Your task to perform on an android device: choose inbox layout in the gmail app Image 0: 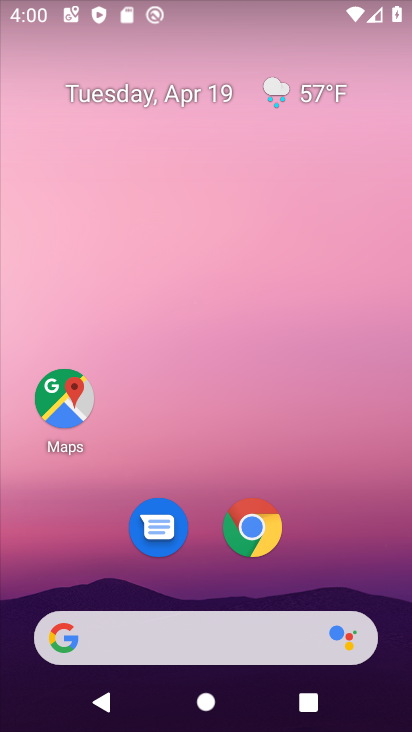
Step 0: drag from (388, 606) to (317, 108)
Your task to perform on an android device: choose inbox layout in the gmail app Image 1: 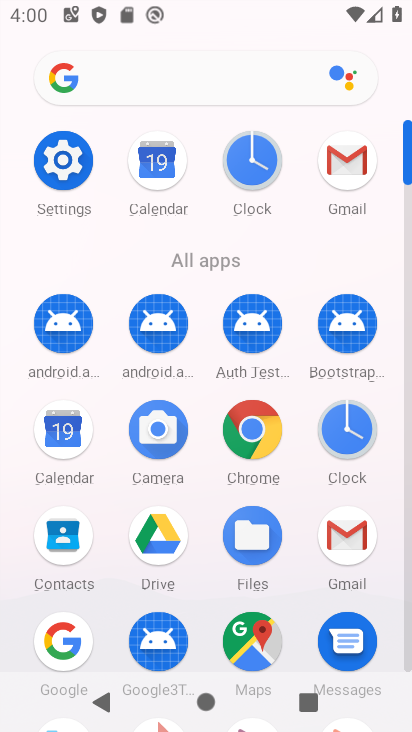
Step 1: click (405, 654)
Your task to perform on an android device: choose inbox layout in the gmail app Image 2: 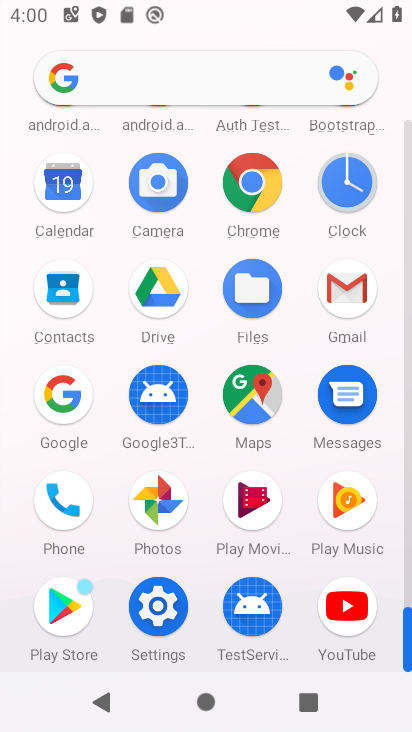
Step 2: click (342, 284)
Your task to perform on an android device: choose inbox layout in the gmail app Image 3: 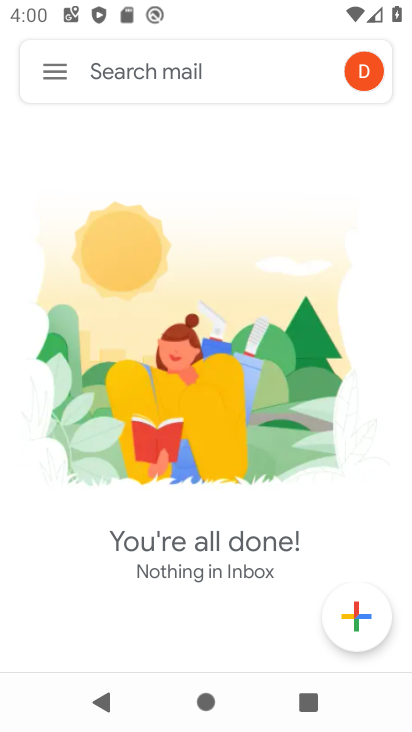
Step 3: click (50, 68)
Your task to perform on an android device: choose inbox layout in the gmail app Image 4: 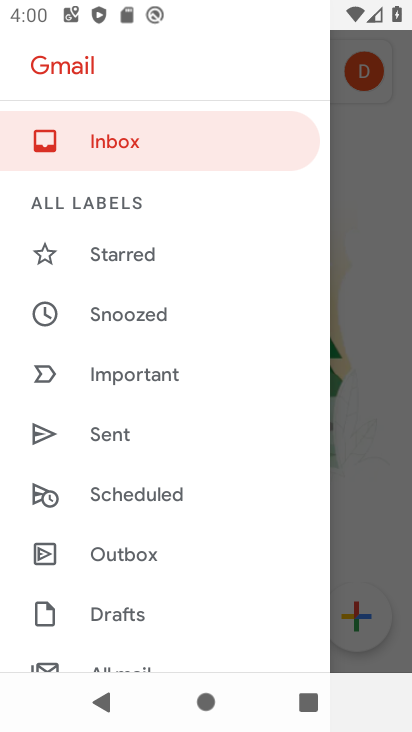
Step 4: drag from (223, 531) to (257, 271)
Your task to perform on an android device: choose inbox layout in the gmail app Image 5: 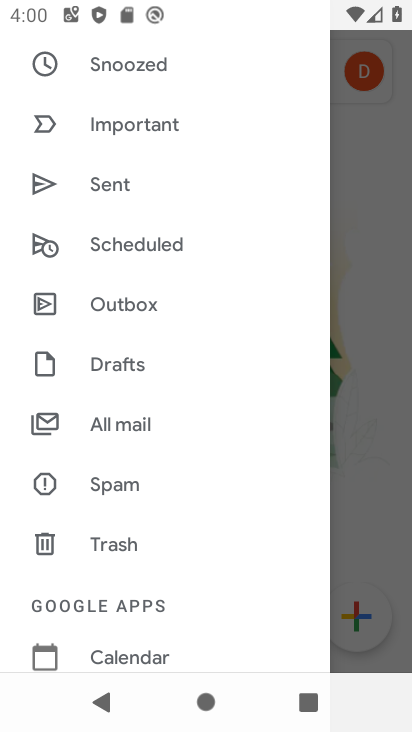
Step 5: drag from (217, 598) to (255, 267)
Your task to perform on an android device: choose inbox layout in the gmail app Image 6: 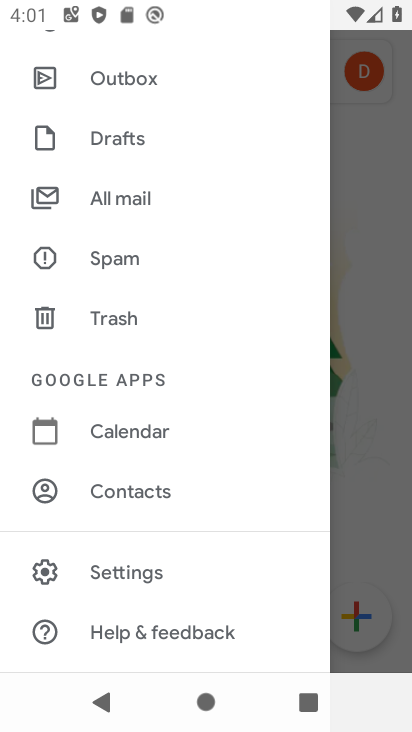
Step 6: click (118, 569)
Your task to perform on an android device: choose inbox layout in the gmail app Image 7: 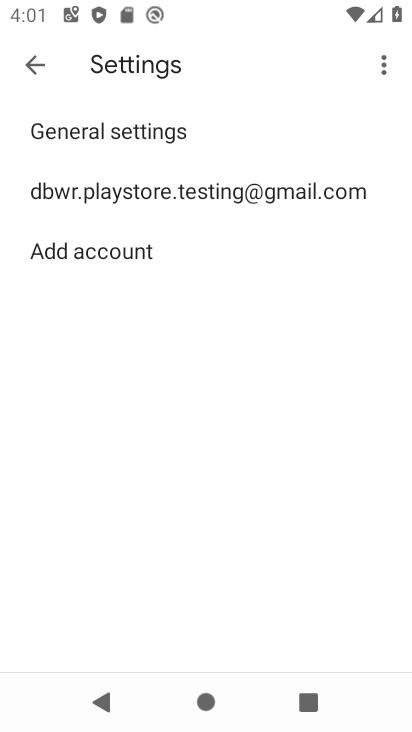
Step 7: click (185, 185)
Your task to perform on an android device: choose inbox layout in the gmail app Image 8: 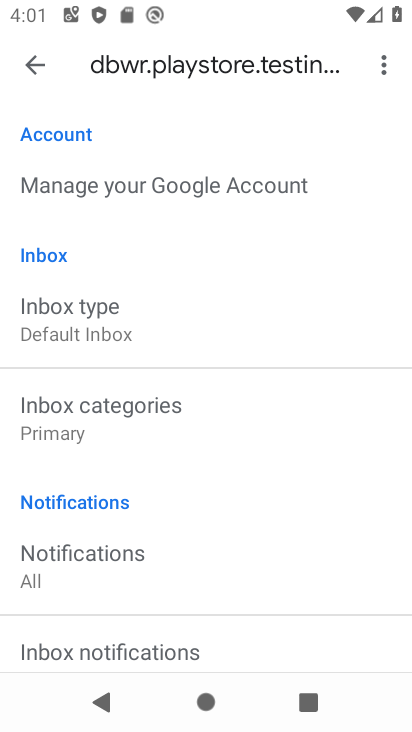
Step 8: click (71, 320)
Your task to perform on an android device: choose inbox layout in the gmail app Image 9: 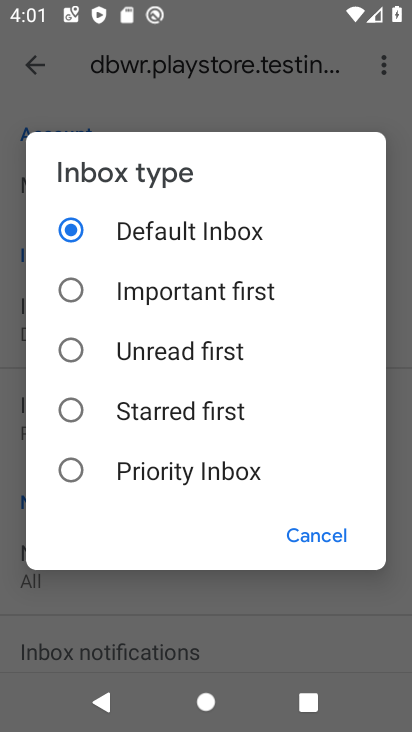
Step 9: click (64, 414)
Your task to perform on an android device: choose inbox layout in the gmail app Image 10: 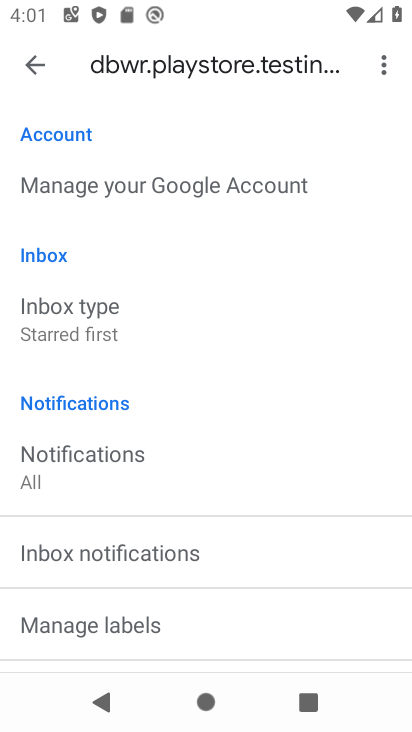
Step 10: task complete